Your task to perform on an android device: Go to Yahoo.com Image 0: 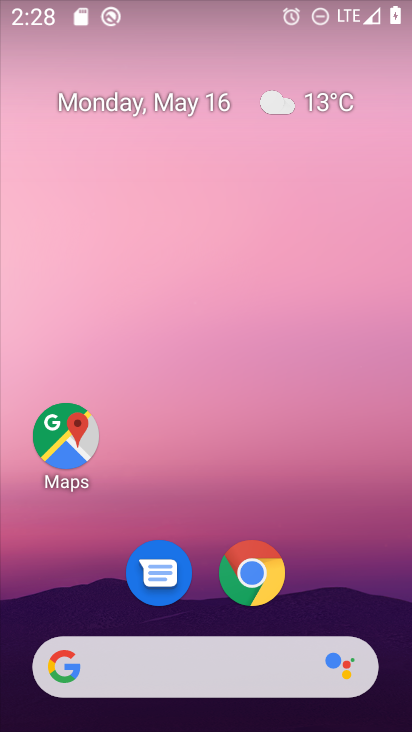
Step 0: click (265, 568)
Your task to perform on an android device: Go to Yahoo.com Image 1: 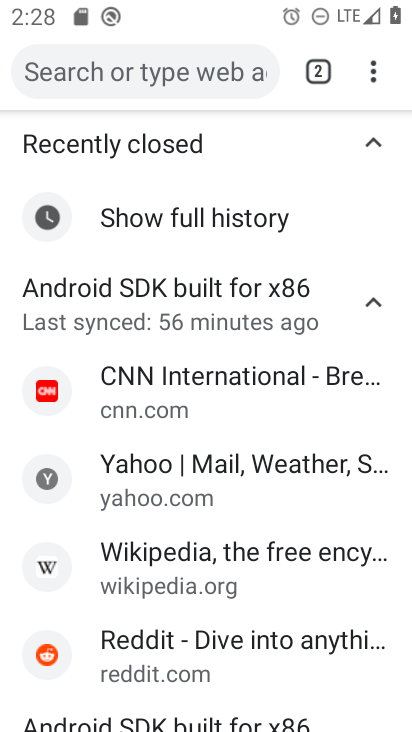
Step 1: click (137, 88)
Your task to perform on an android device: Go to Yahoo.com Image 2: 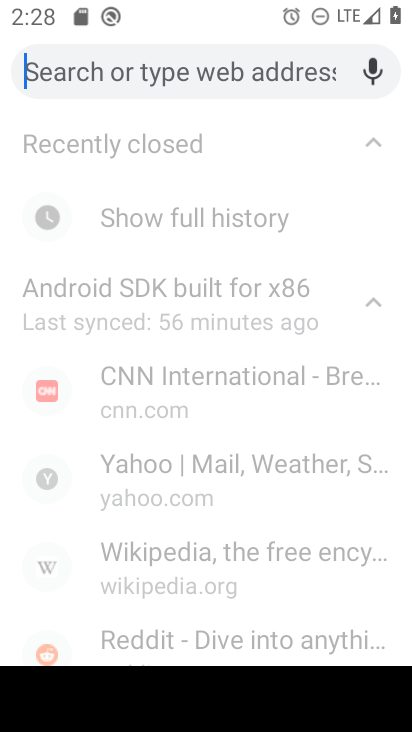
Step 2: type "yahoo.com"
Your task to perform on an android device: Go to Yahoo.com Image 3: 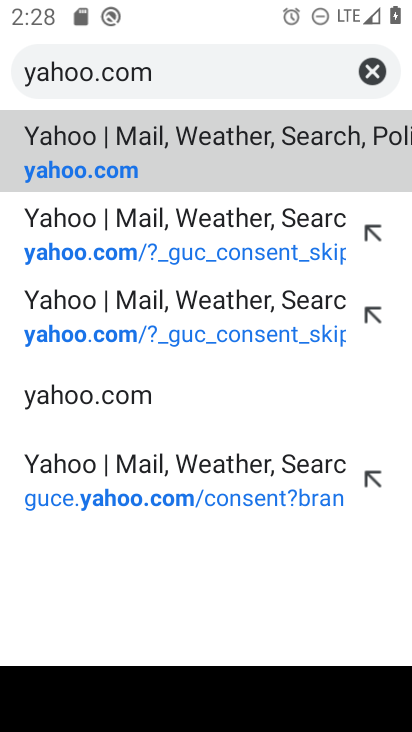
Step 3: click (76, 147)
Your task to perform on an android device: Go to Yahoo.com Image 4: 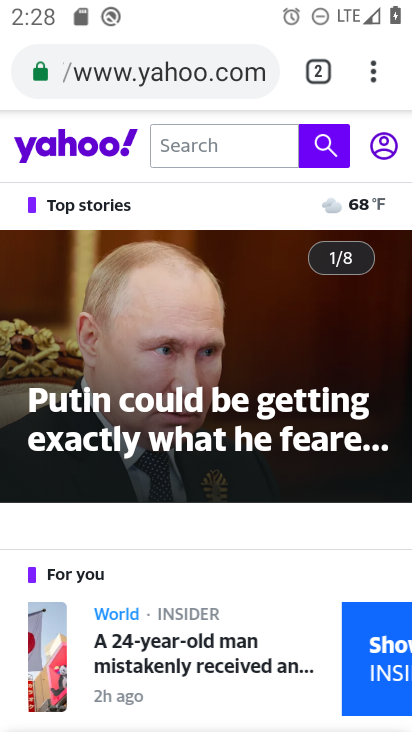
Step 4: task complete